Your task to perform on an android device: Go to Maps Image 0: 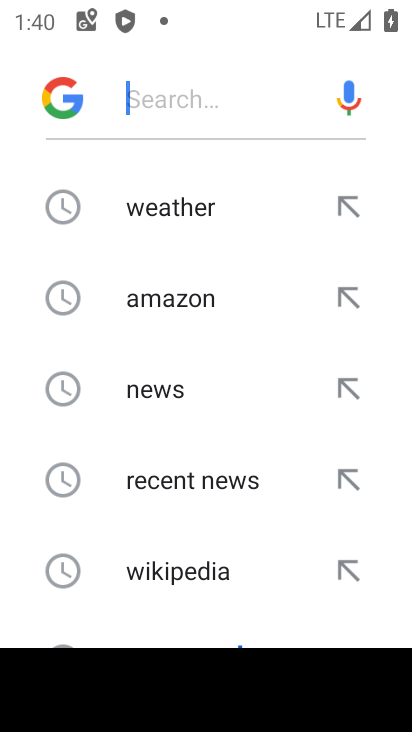
Step 0: press back button
Your task to perform on an android device: Go to Maps Image 1: 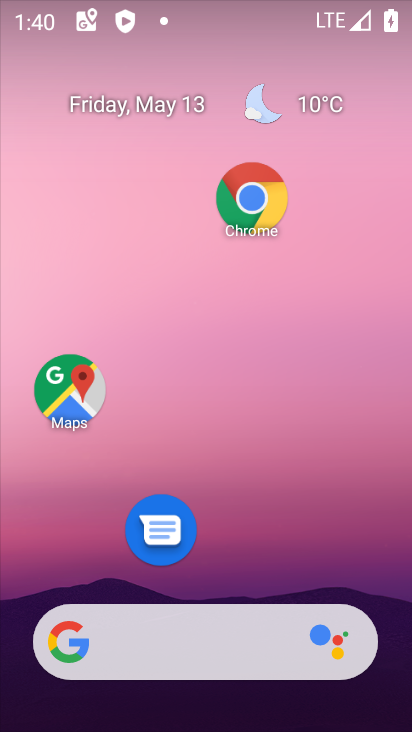
Step 1: drag from (215, 584) to (171, 11)
Your task to perform on an android device: Go to Maps Image 2: 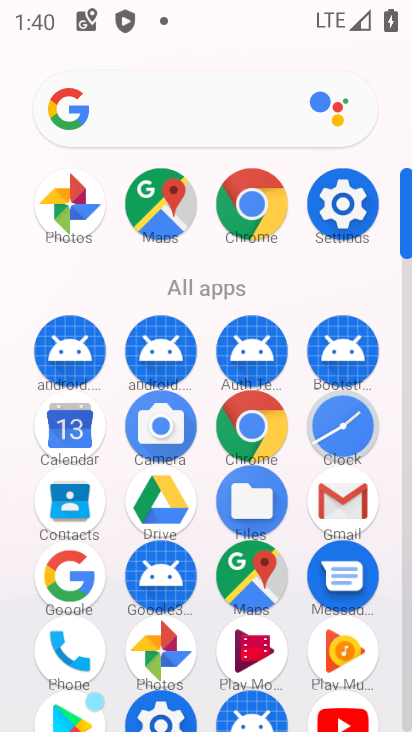
Step 2: click (256, 582)
Your task to perform on an android device: Go to Maps Image 3: 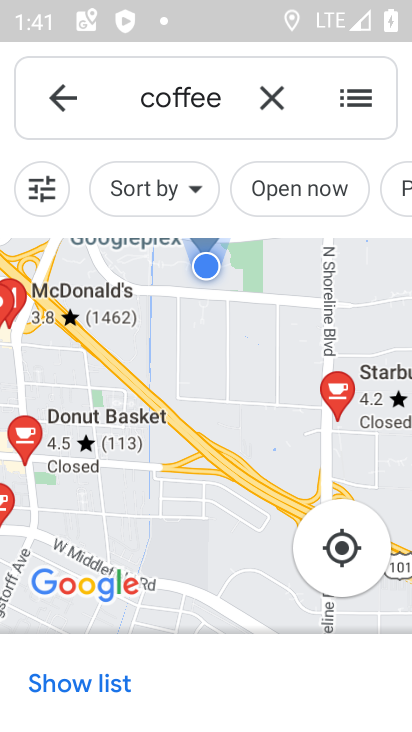
Step 3: task complete